Your task to perform on an android device: turn off airplane mode Image 0: 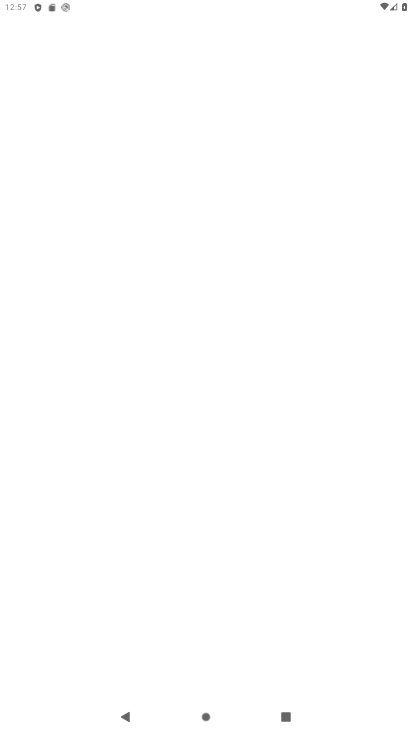
Step 0: drag from (257, 11) to (201, 540)
Your task to perform on an android device: turn off airplane mode Image 1: 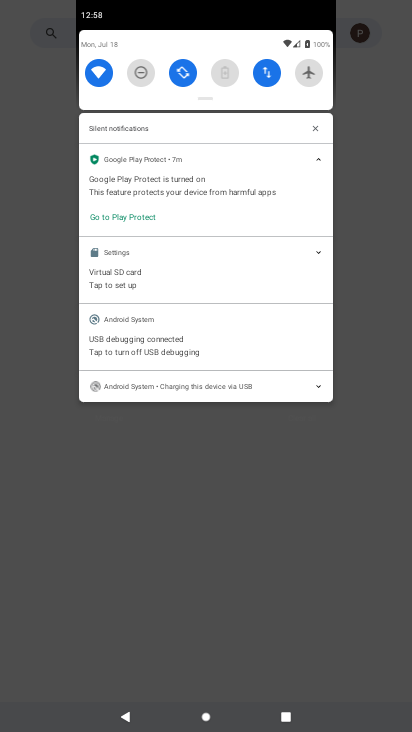
Step 1: task complete